Your task to perform on an android device: Open calendar and show me the first week of next month Image 0: 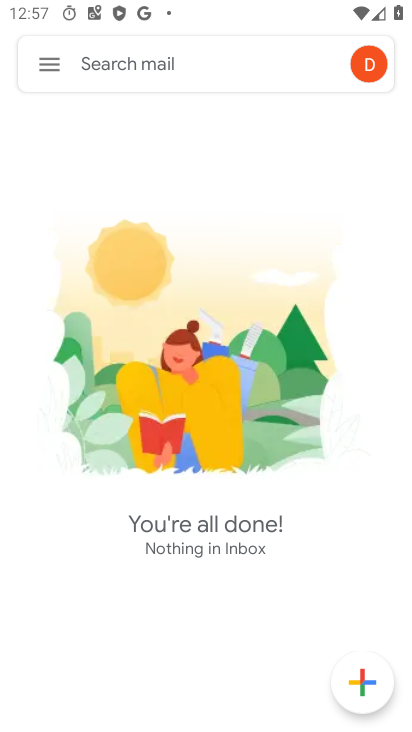
Step 0: click (44, 46)
Your task to perform on an android device: Open calendar and show me the first week of next month Image 1: 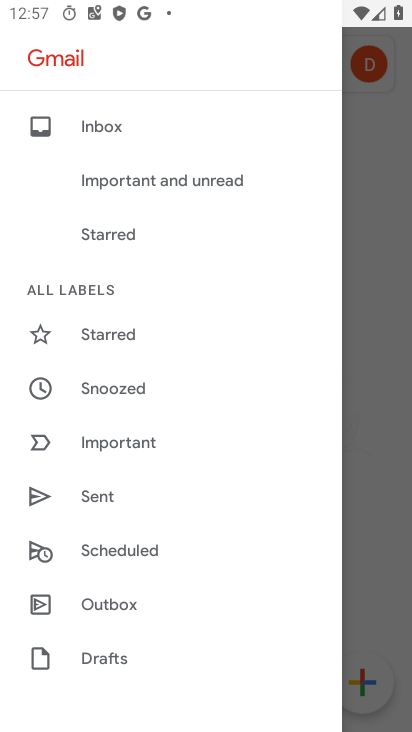
Step 1: drag from (196, 461) to (194, 263)
Your task to perform on an android device: Open calendar and show me the first week of next month Image 2: 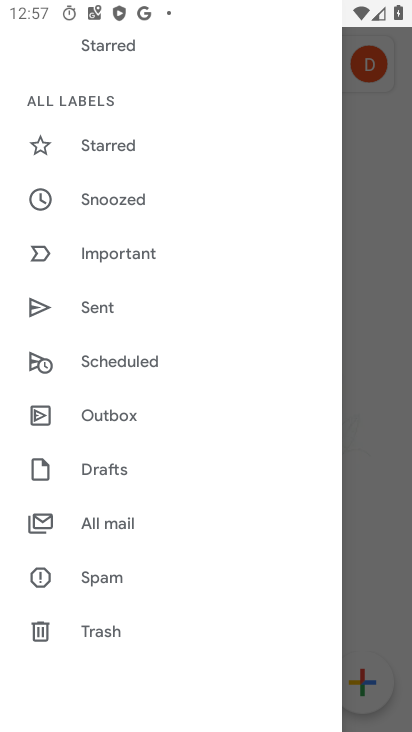
Step 2: drag from (367, 531) to (408, 405)
Your task to perform on an android device: Open calendar and show me the first week of next month Image 3: 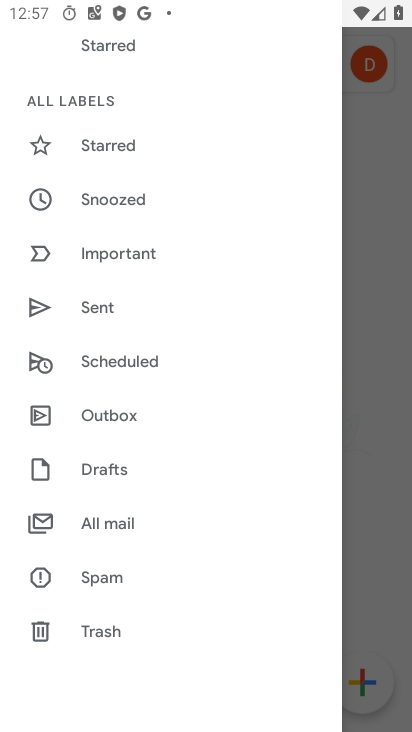
Step 3: press home button
Your task to perform on an android device: Open calendar and show me the first week of next month Image 4: 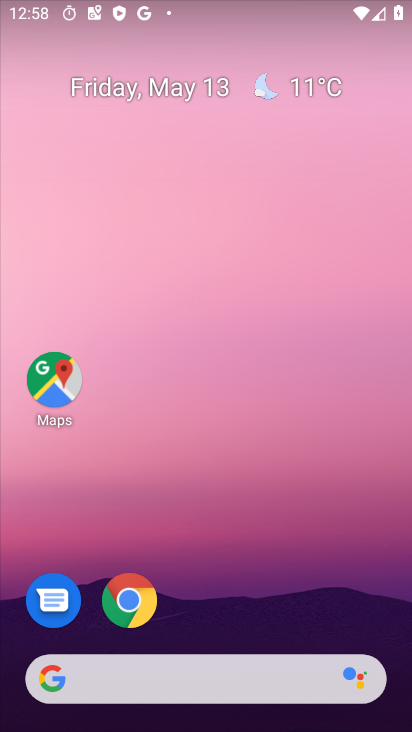
Step 4: drag from (236, 611) to (190, 93)
Your task to perform on an android device: Open calendar and show me the first week of next month Image 5: 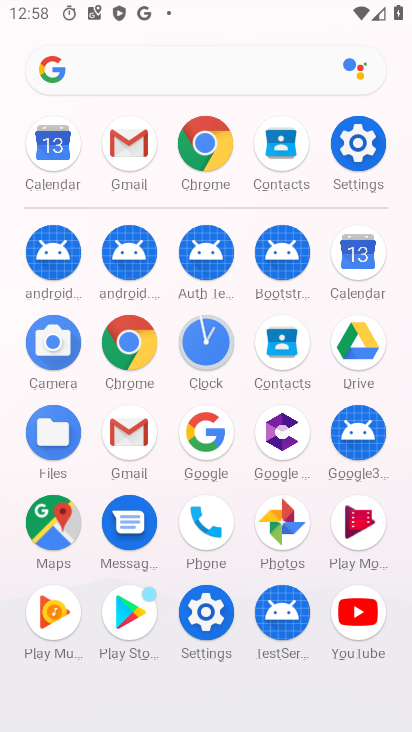
Step 5: click (366, 265)
Your task to perform on an android device: Open calendar and show me the first week of next month Image 6: 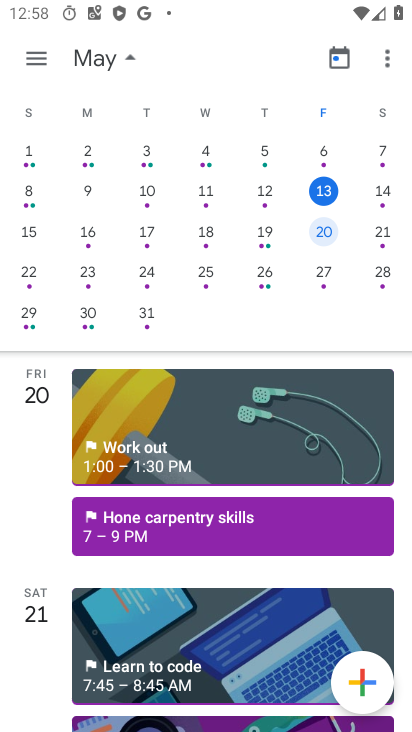
Step 6: drag from (357, 204) to (45, 216)
Your task to perform on an android device: Open calendar and show me the first week of next month Image 7: 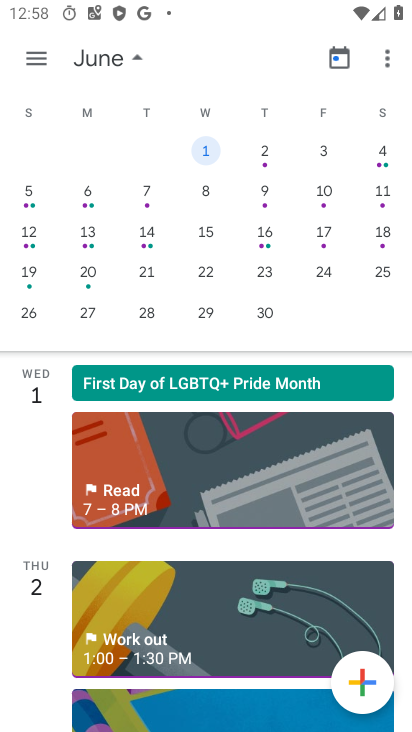
Step 7: click (275, 144)
Your task to perform on an android device: Open calendar and show me the first week of next month Image 8: 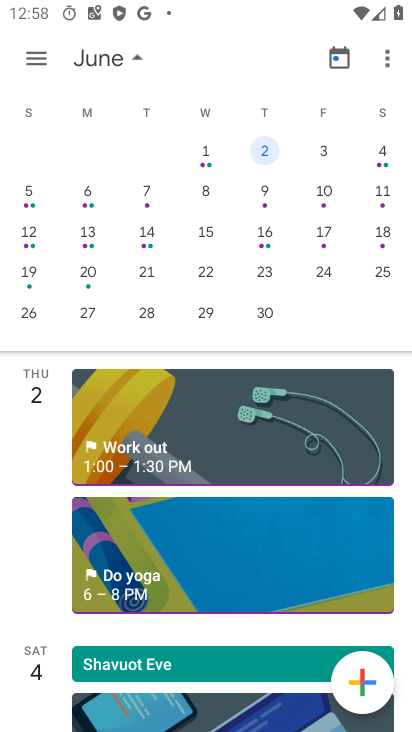
Step 8: task complete